Your task to perform on an android device: change the clock display to analog Image 0: 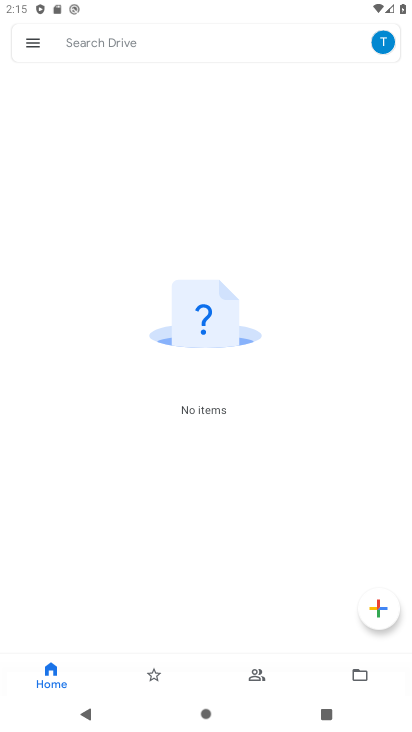
Step 0: press home button
Your task to perform on an android device: change the clock display to analog Image 1: 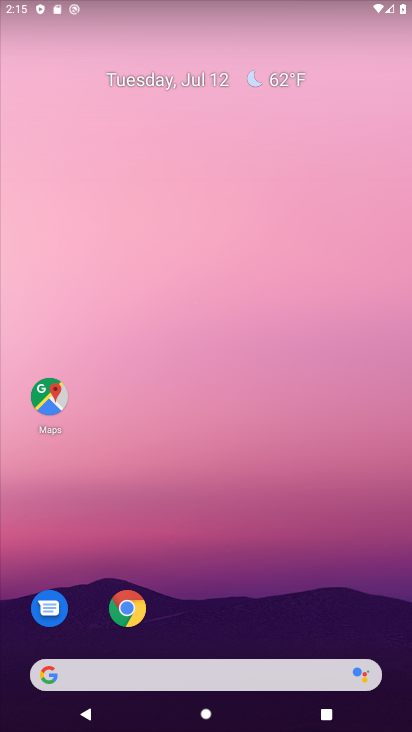
Step 1: drag from (197, 669) to (344, 186)
Your task to perform on an android device: change the clock display to analog Image 2: 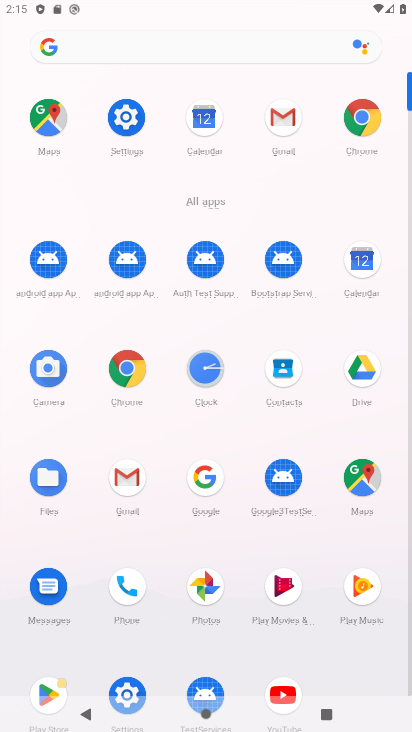
Step 2: click (205, 376)
Your task to perform on an android device: change the clock display to analog Image 3: 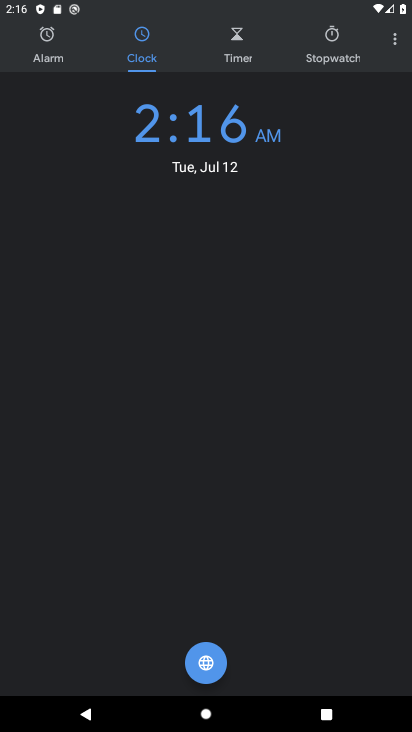
Step 3: click (397, 38)
Your task to perform on an android device: change the clock display to analog Image 4: 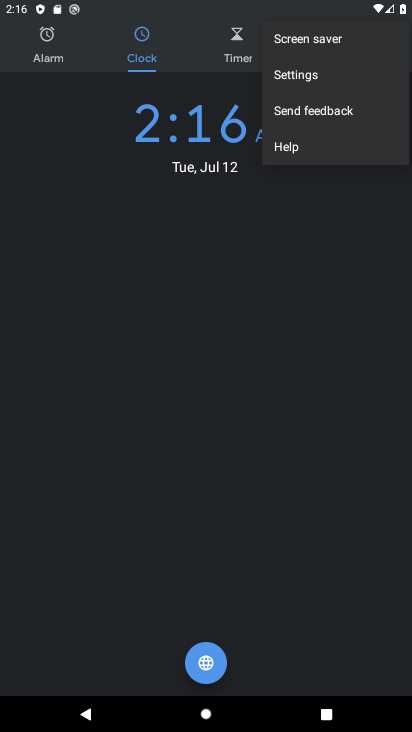
Step 4: click (320, 82)
Your task to perform on an android device: change the clock display to analog Image 5: 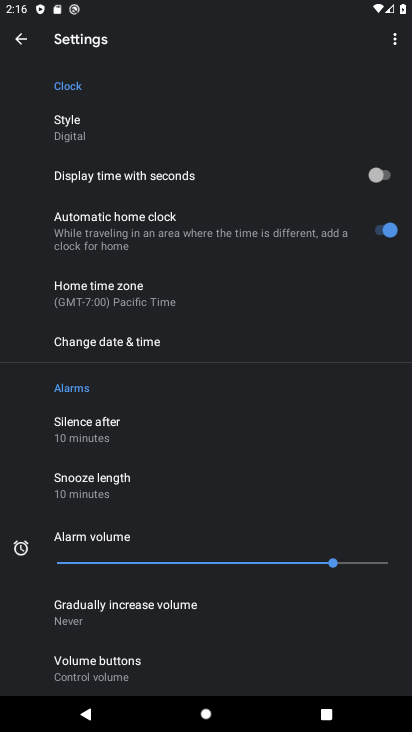
Step 5: click (69, 129)
Your task to perform on an android device: change the clock display to analog Image 6: 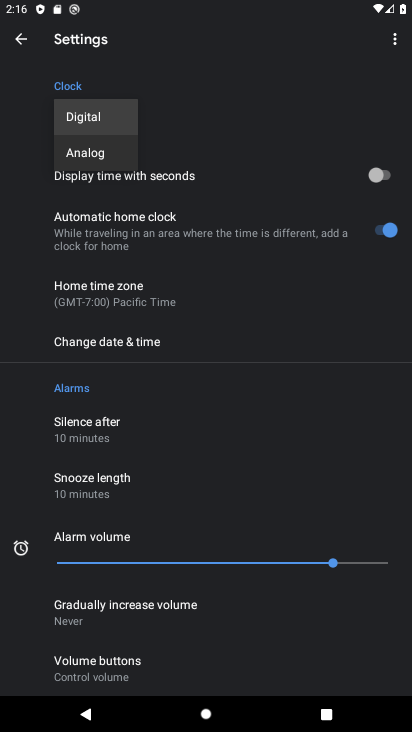
Step 6: click (101, 152)
Your task to perform on an android device: change the clock display to analog Image 7: 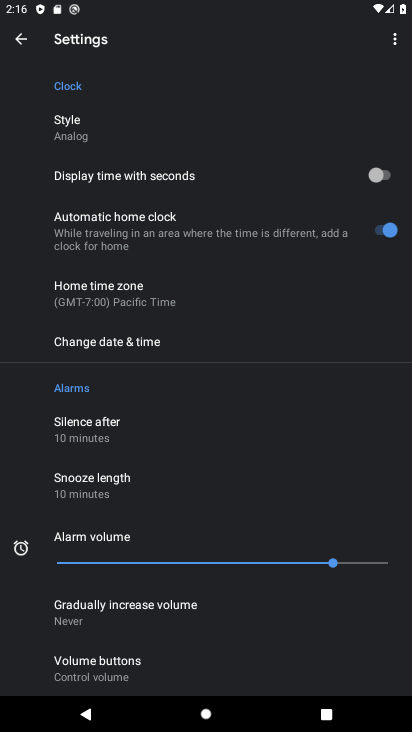
Step 7: task complete